Your task to perform on an android device: Go to privacy settings Image 0: 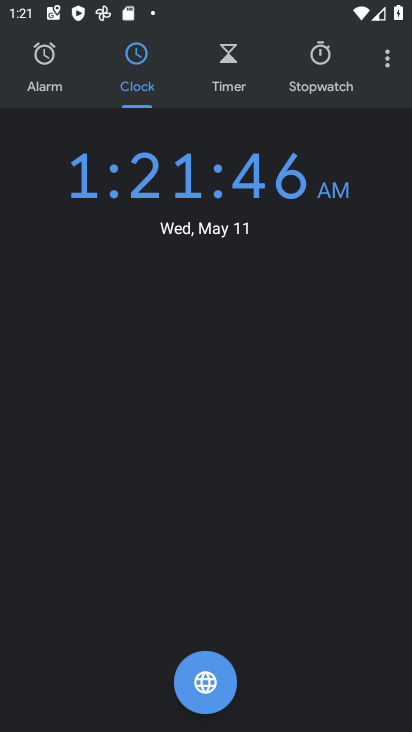
Step 0: press home button
Your task to perform on an android device: Go to privacy settings Image 1: 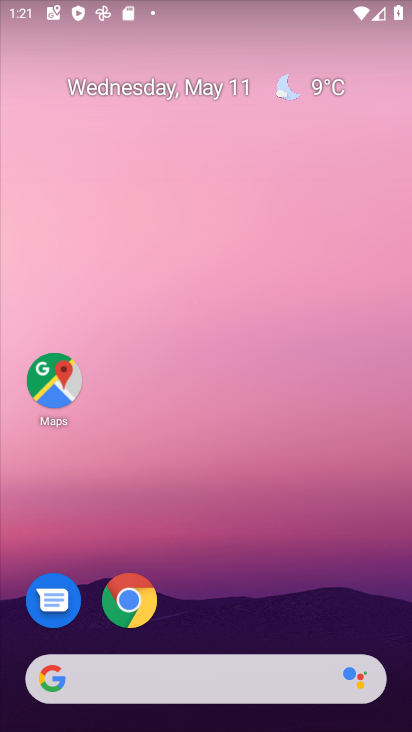
Step 1: drag from (191, 725) to (228, 23)
Your task to perform on an android device: Go to privacy settings Image 2: 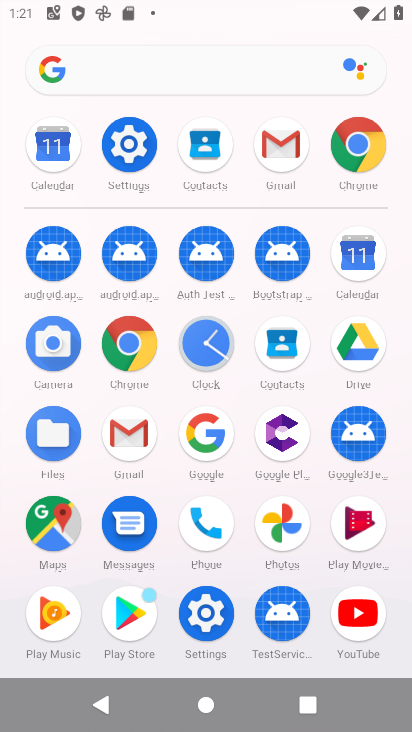
Step 2: click (132, 152)
Your task to perform on an android device: Go to privacy settings Image 3: 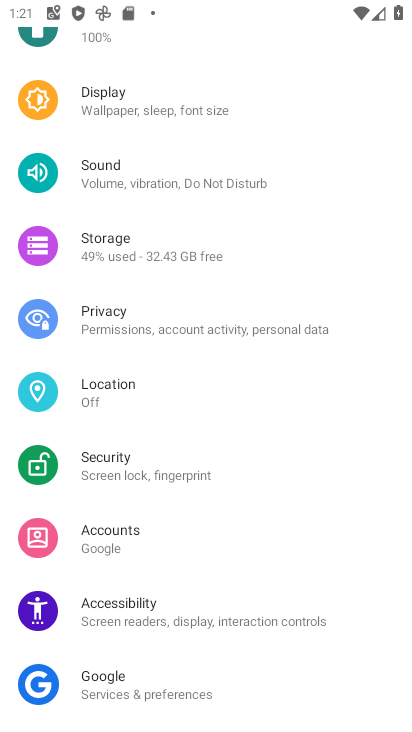
Step 3: click (224, 326)
Your task to perform on an android device: Go to privacy settings Image 4: 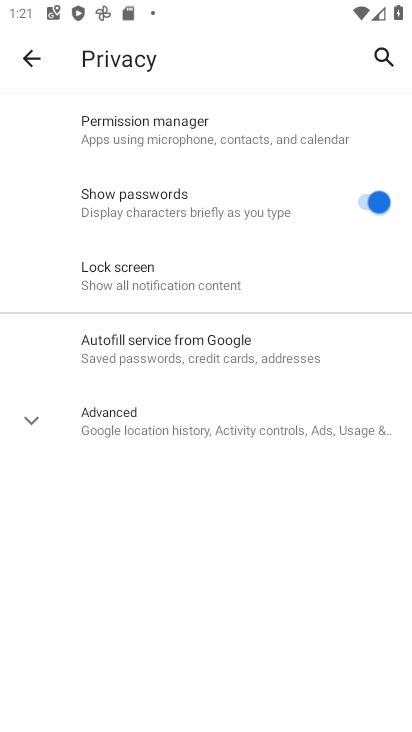
Step 4: task complete